Your task to perform on an android device: change notification settings in the gmail app Image 0: 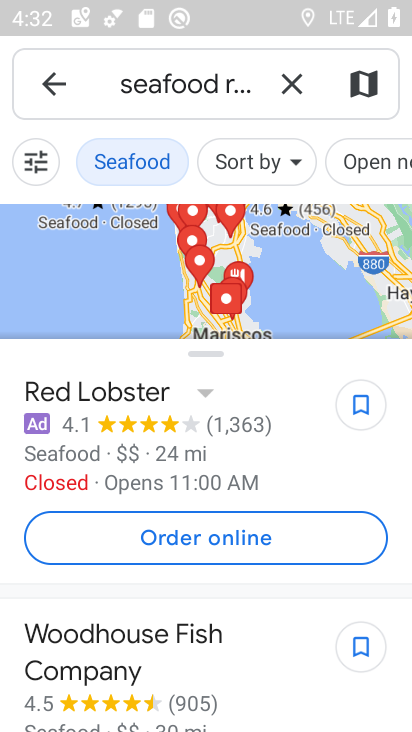
Step 0: press home button
Your task to perform on an android device: change notification settings in the gmail app Image 1: 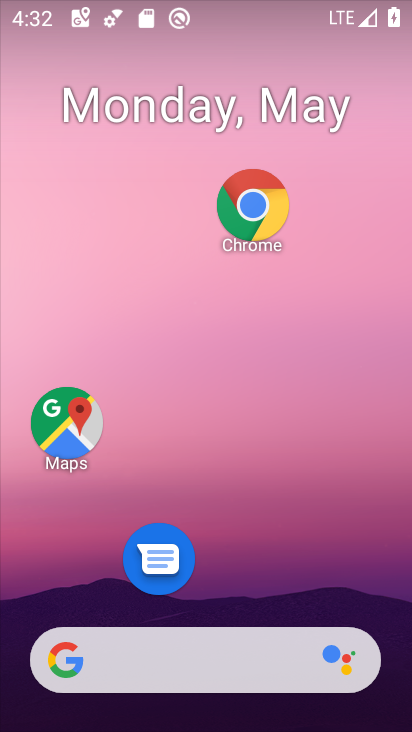
Step 1: drag from (219, 580) to (277, 0)
Your task to perform on an android device: change notification settings in the gmail app Image 2: 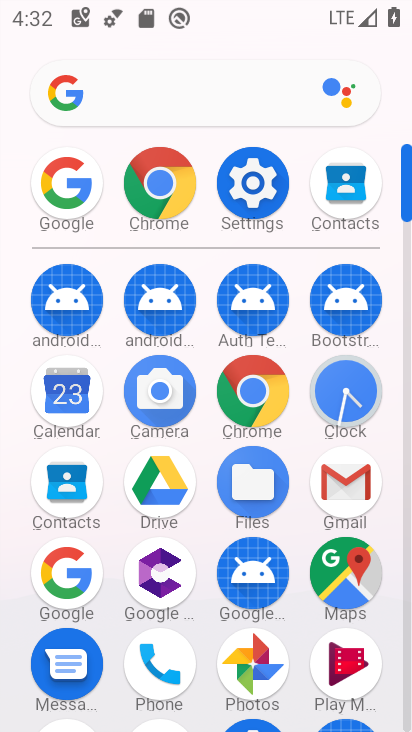
Step 2: click (347, 501)
Your task to perform on an android device: change notification settings in the gmail app Image 3: 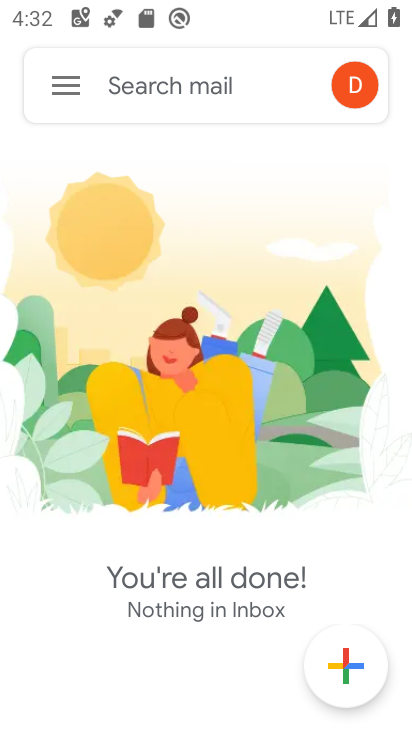
Step 3: click (53, 84)
Your task to perform on an android device: change notification settings in the gmail app Image 4: 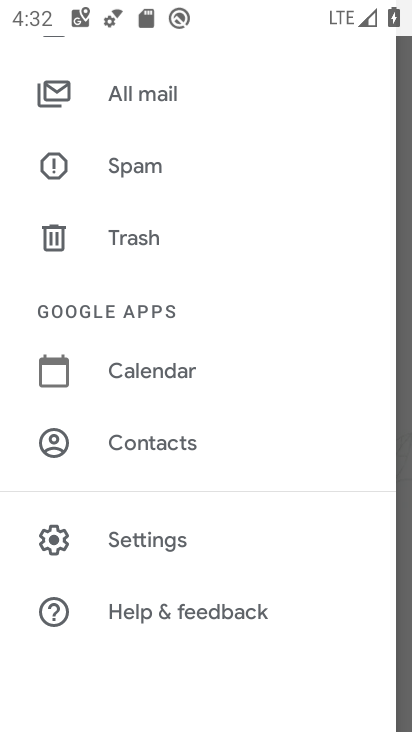
Step 4: click (131, 547)
Your task to perform on an android device: change notification settings in the gmail app Image 5: 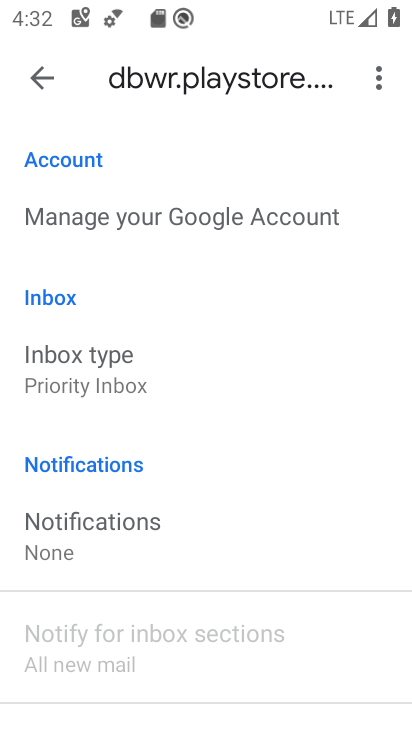
Step 5: click (91, 540)
Your task to perform on an android device: change notification settings in the gmail app Image 6: 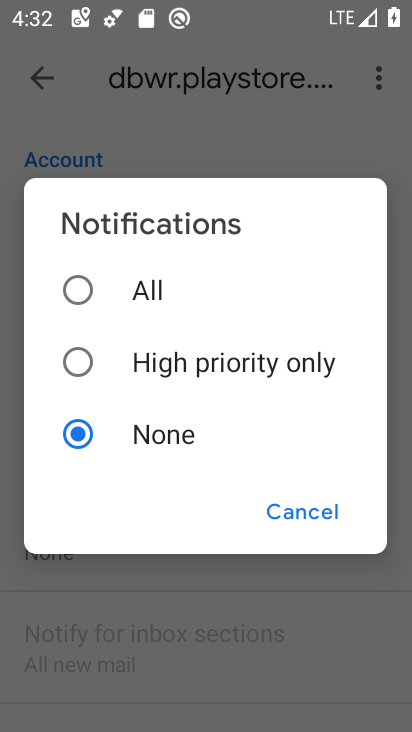
Step 6: click (79, 297)
Your task to perform on an android device: change notification settings in the gmail app Image 7: 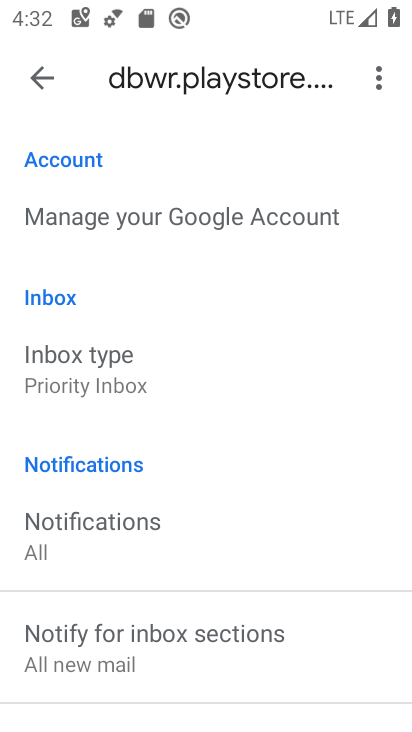
Step 7: task complete